Your task to perform on an android device: Open location settings Image 0: 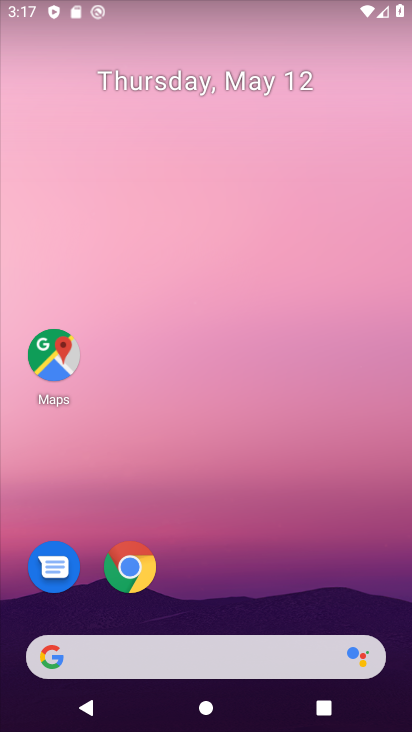
Step 0: drag from (213, 615) to (291, 141)
Your task to perform on an android device: Open location settings Image 1: 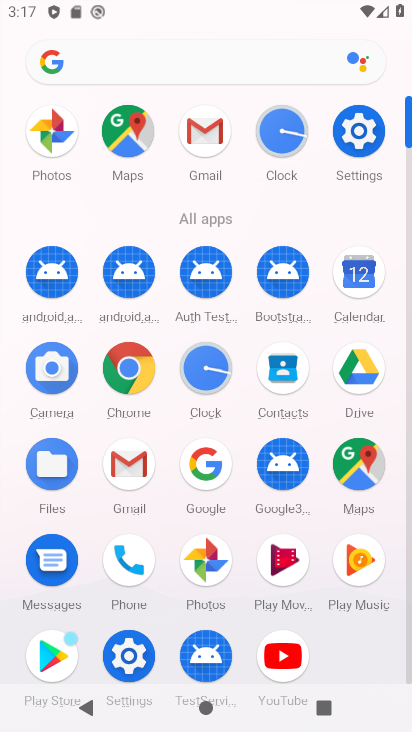
Step 1: click (131, 659)
Your task to perform on an android device: Open location settings Image 2: 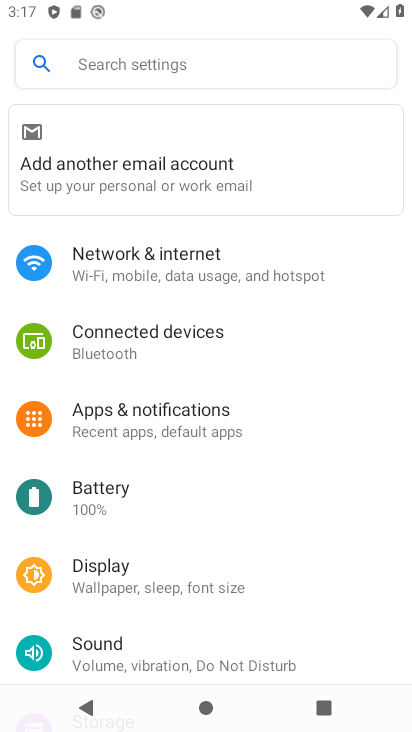
Step 2: drag from (162, 651) to (261, 349)
Your task to perform on an android device: Open location settings Image 3: 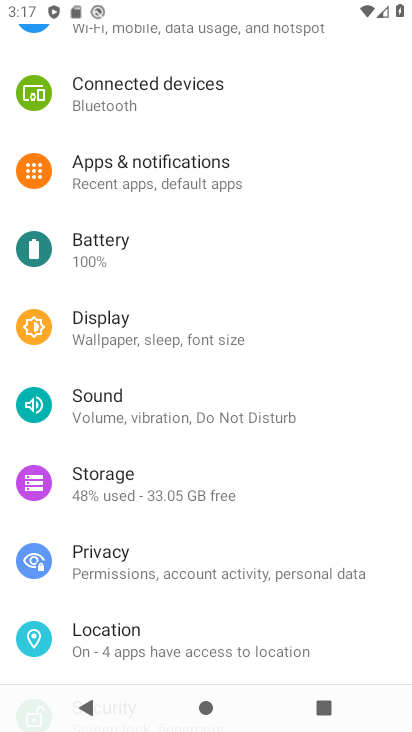
Step 3: click (165, 634)
Your task to perform on an android device: Open location settings Image 4: 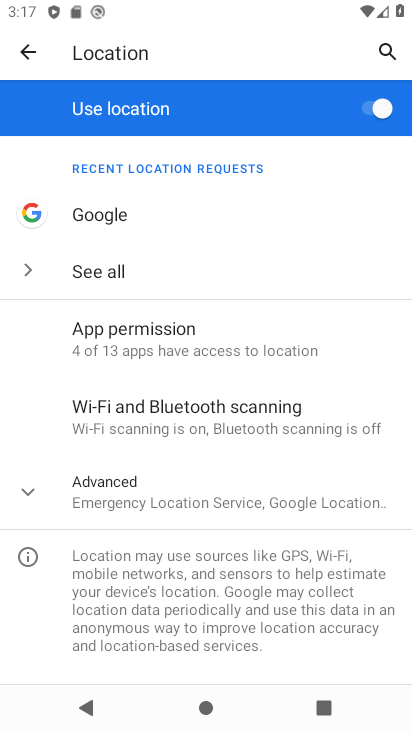
Step 4: task complete